Your task to perform on an android device: turn off translation in the chrome app Image 0: 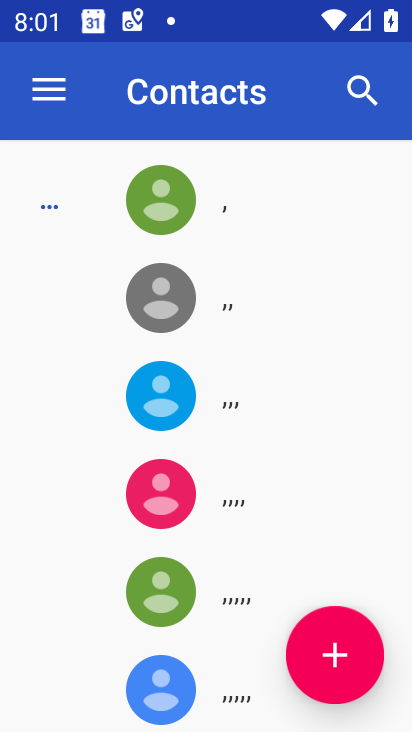
Step 0: press home button
Your task to perform on an android device: turn off translation in the chrome app Image 1: 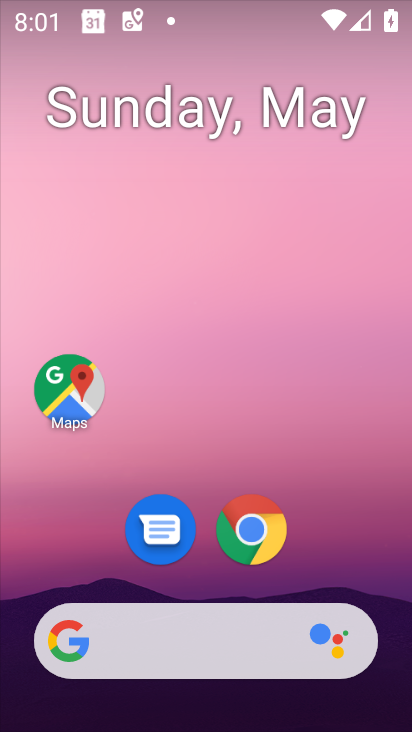
Step 1: drag from (344, 547) to (325, 49)
Your task to perform on an android device: turn off translation in the chrome app Image 2: 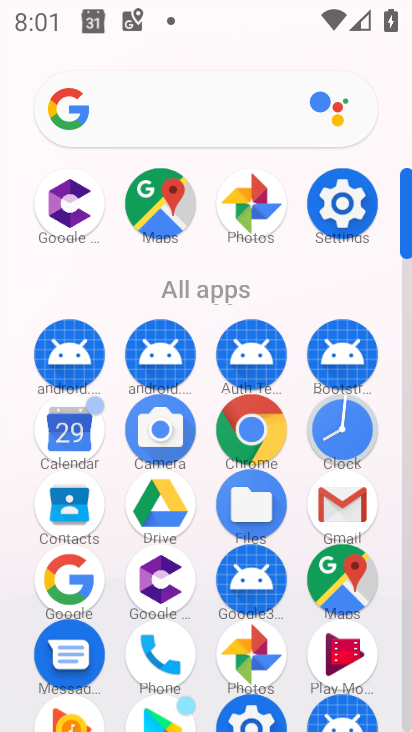
Step 2: click (263, 427)
Your task to perform on an android device: turn off translation in the chrome app Image 3: 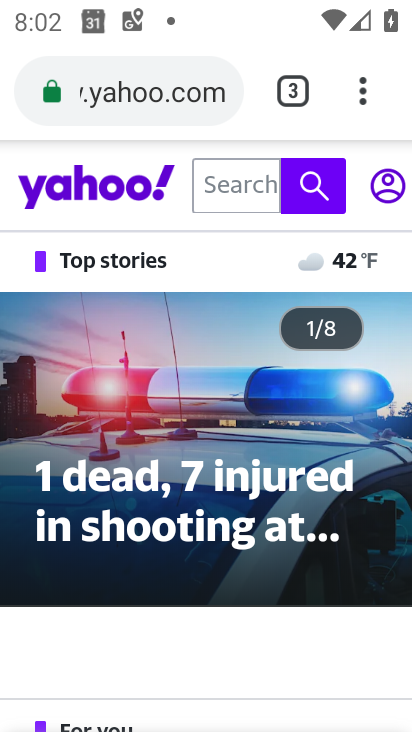
Step 3: click (360, 100)
Your task to perform on an android device: turn off translation in the chrome app Image 4: 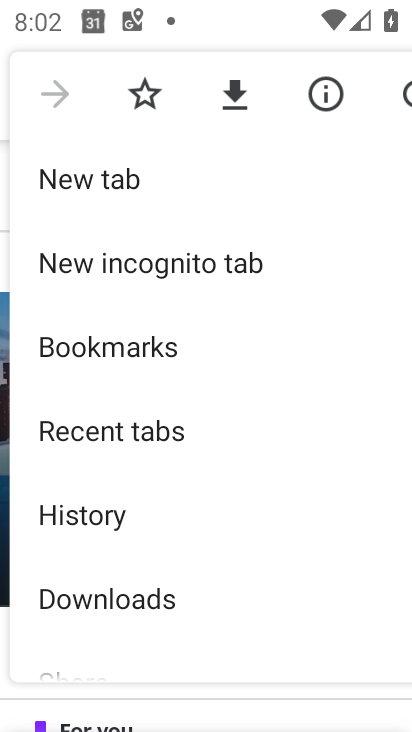
Step 4: drag from (177, 586) to (212, 241)
Your task to perform on an android device: turn off translation in the chrome app Image 5: 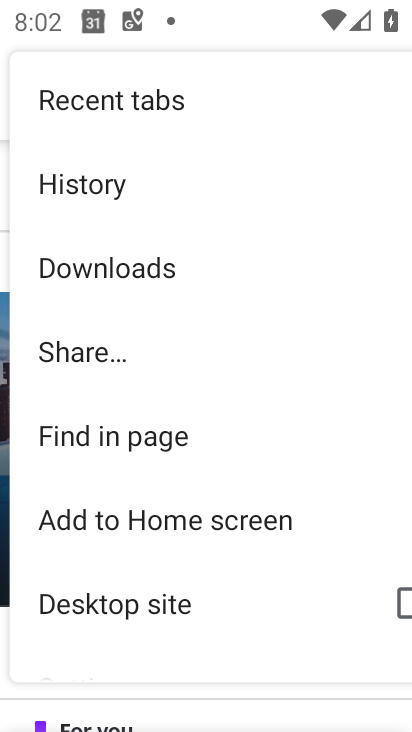
Step 5: drag from (197, 562) to (182, 364)
Your task to perform on an android device: turn off translation in the chrome app Image 6: 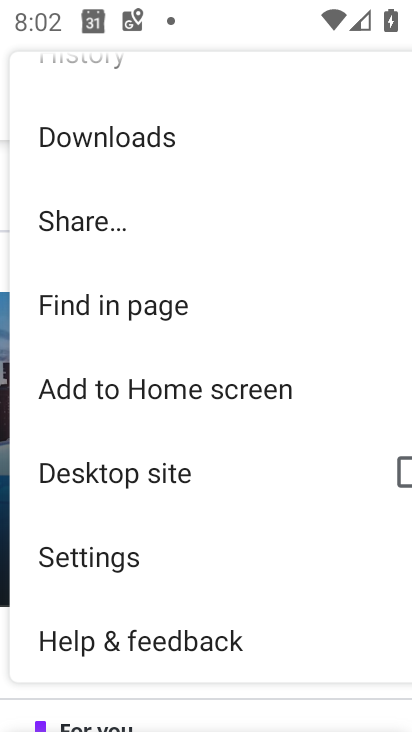
Step 6: click (196, 583)
Your task to perform on an android device: turn off translation in the chrome app Image 7: 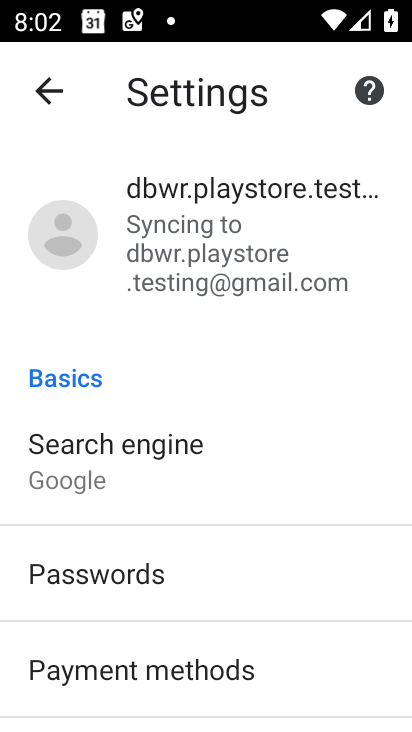
Step 7: drag from (155, 609) to (155, 333)
Your task to perform on an android device: turn off translation in the chrome app Image 8: 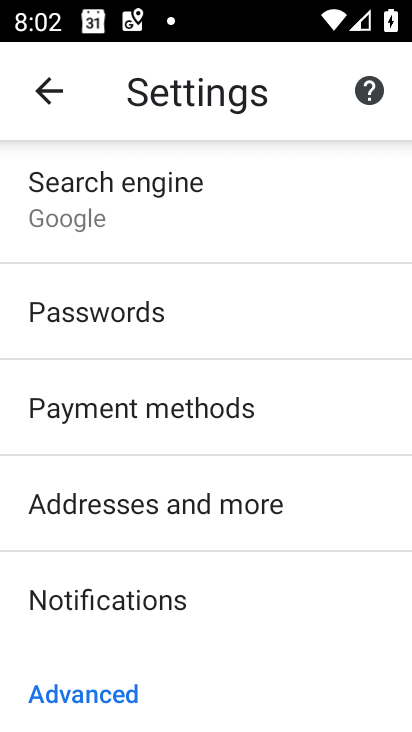
Step 8: click (97, 678)
Your task to perform on an android device: turn off translation in the chrome app Image 9: 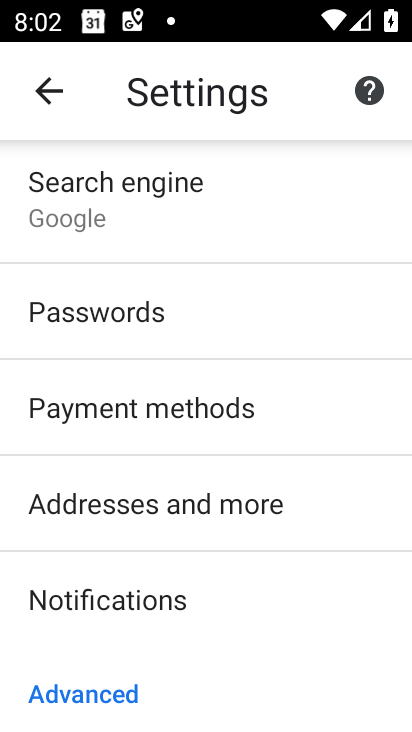
Step 9: drag from (97, 678) to (137, 410)
Your task to perform on an android device: turn off translation in the chrome app Image 10: 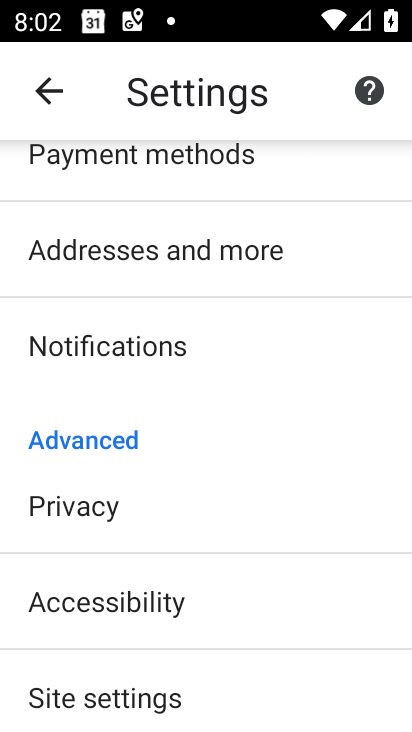
Step 10: drag from (177, 669) to (182, 341)
Your task to perform on an android device: turn off translation in the chrome app Image 11: 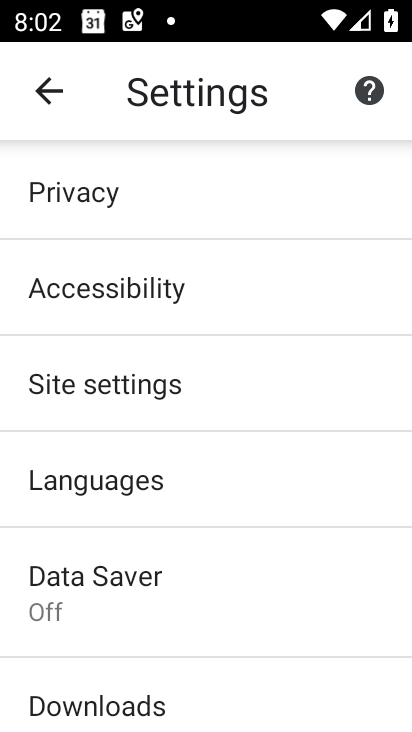
Step 11: drag from (143, 627) to (179, 427)
Your task to perform on an android device: turn off translation in the chrome app Image 12: 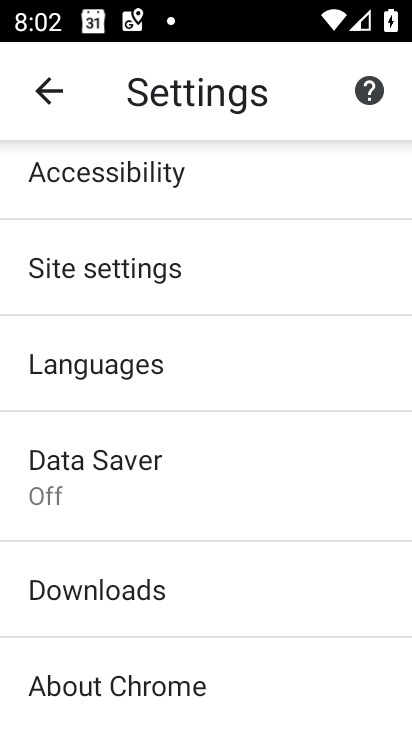
Step 12: click (152, 372)
Your task to perform on an android device: turn off translation in the chrome app Image 13: 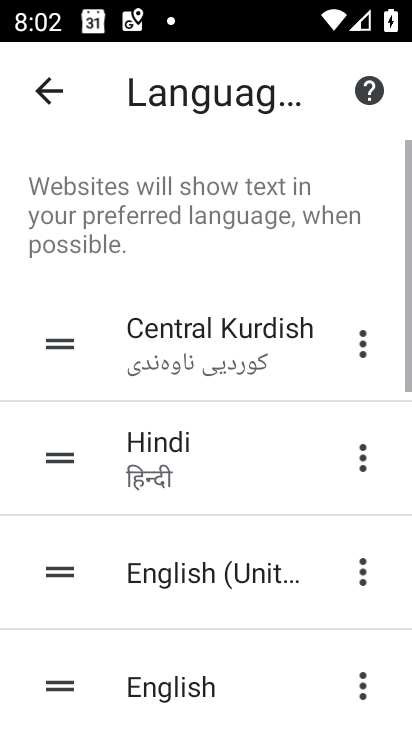
Step 13: drag from (272, 608) to (302, 413)
Your task to perform on an android device: turn off translation in the chrome app Image 14: 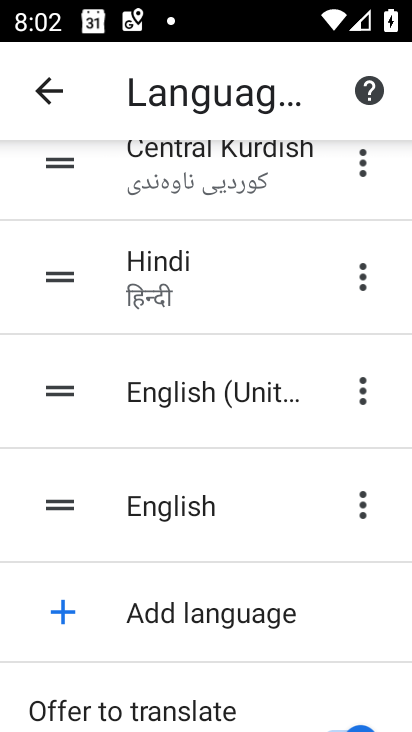
Step 14: click (332, 685)
Your task to perform on an android device: turn off translation in the chrome app Image 15: 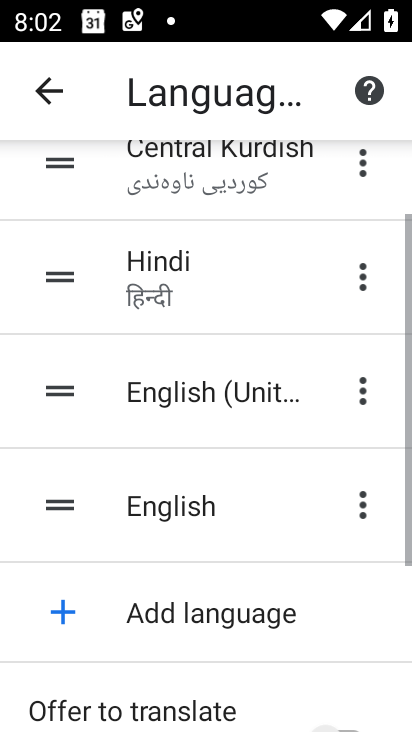
Step 15: task complete